Your task to perform on an android device: all mails in gmail Image 0: 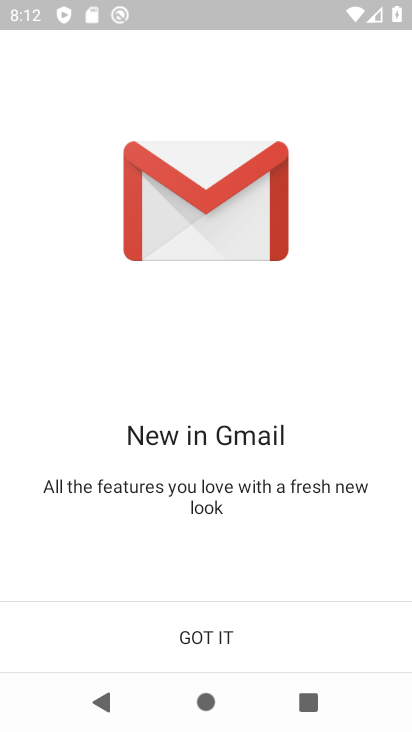
Step 0: click (199, 643)
Your task to perform on an android device: all mails in gmail Image 1: 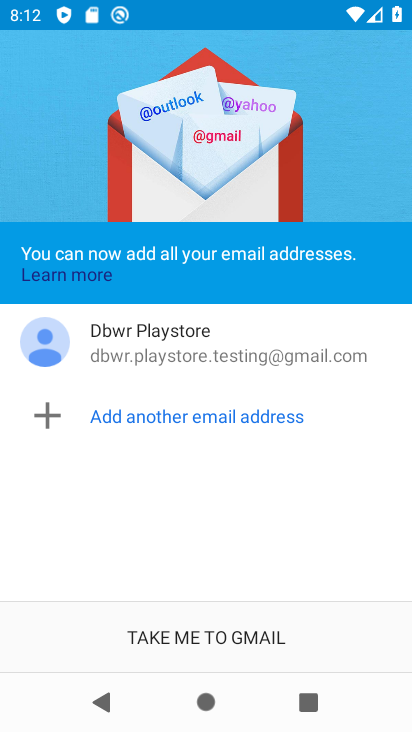
Step 1: click (199, 643)
Your task to perform on an android device: all mails in gmail Image 2: 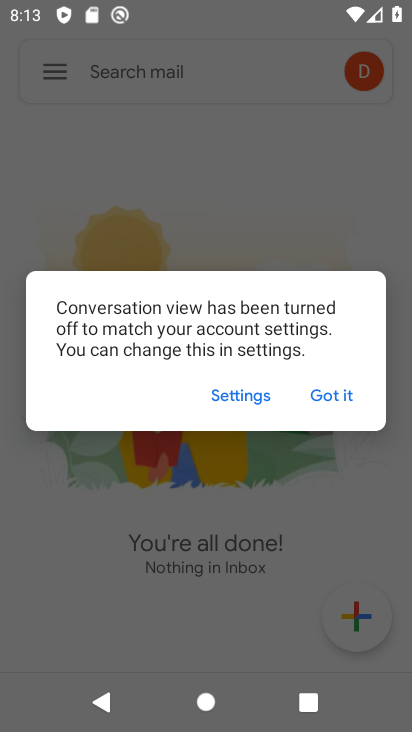
Step 2: click (328, 397)
Your task to perform on an android device: all mails in gmail Image 3: 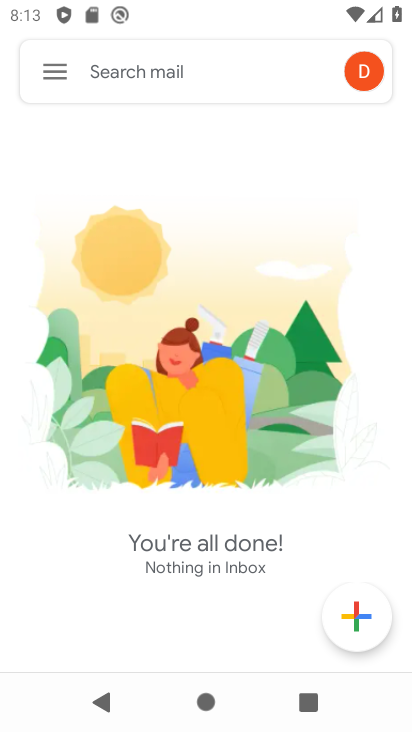
Step 3: click (45, 69)
Your task to perform on an android device: all mails in gmail Image 4: 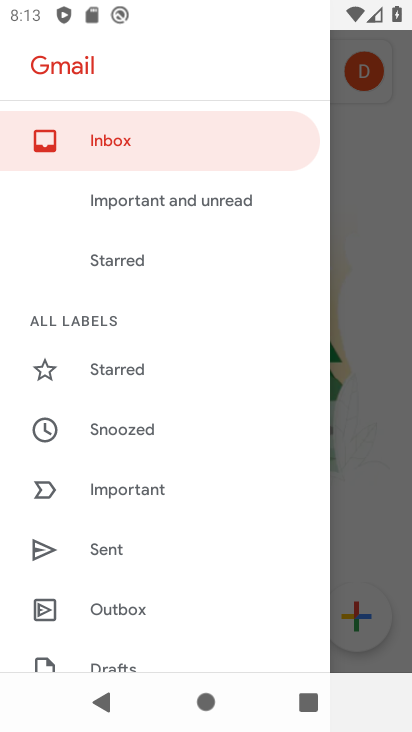
Step 4: drag from (135, 587) to (176, 226)
Your task to perform on an android device: all mails in gmail Image 5: 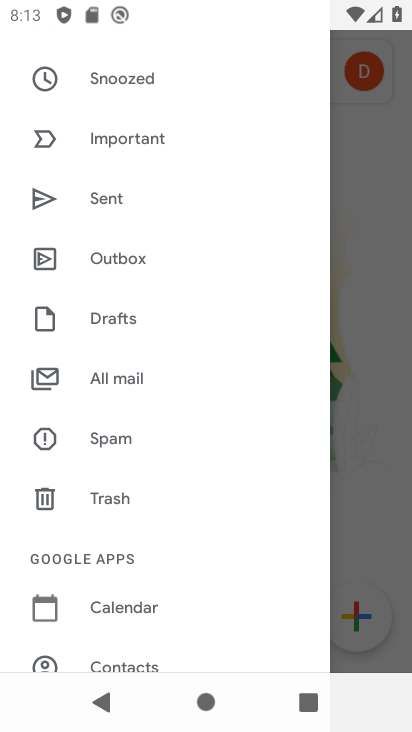
Step 5: click (145, 393)
Your task to perform on an android device: all mails in gmail Image 6: 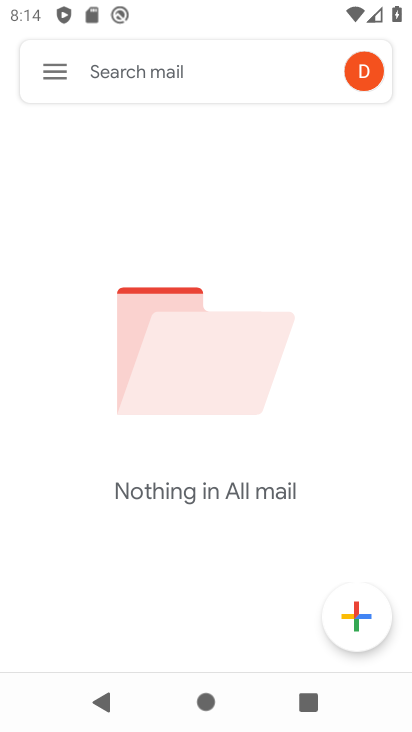
Step 6: task complete